Your task to perform on an android device: toggle priority inbox in the gmail app Image 0: 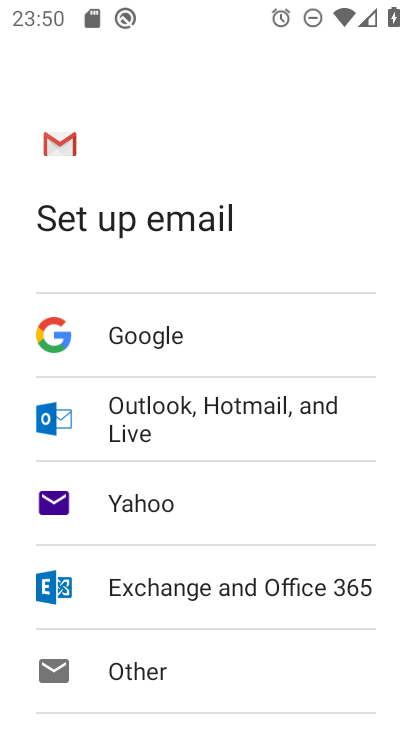
Step 0: press home button
Your task to perform on an android device: toggle priority inbox in the gmail app Image 1: 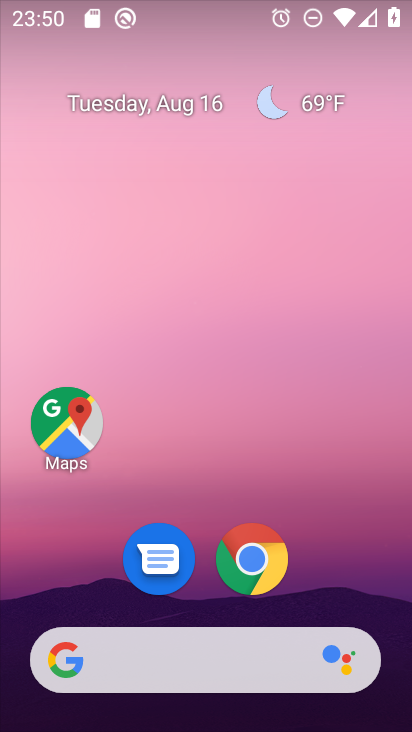
Step 1: drag from (187, 677) to (268, 91)
Your task to perform on an android device: toggle priority inbox in the gmail app Image 2: 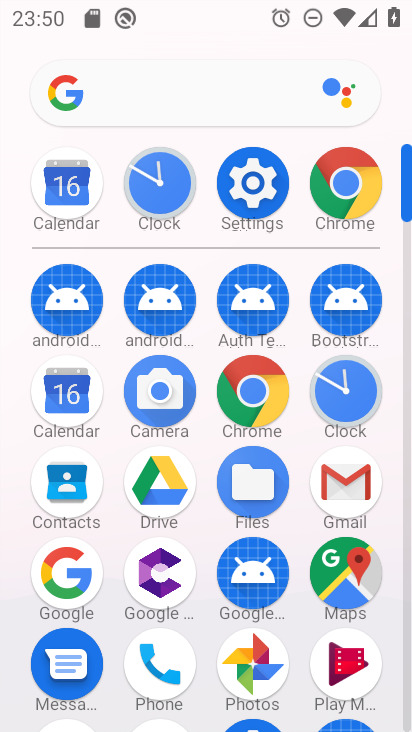
Step 2: click (344, 483)
Your task to perform on an android device: toggle priority inbox in the gmail app Image 3: 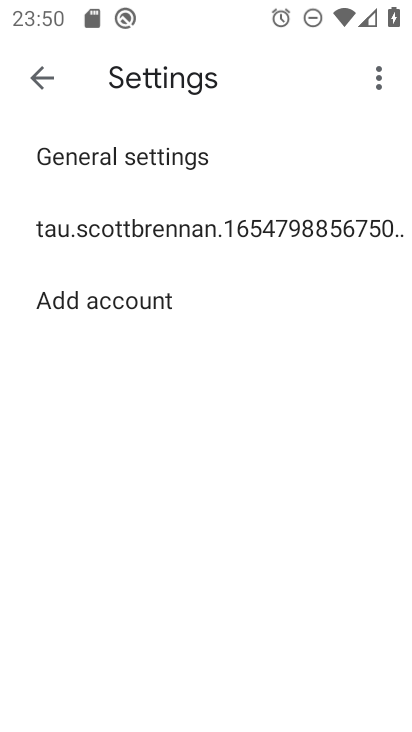
Step 3: click (343, 225)
Your task to perform on an android device: toggle priority inbox in the gmail app Image 4: 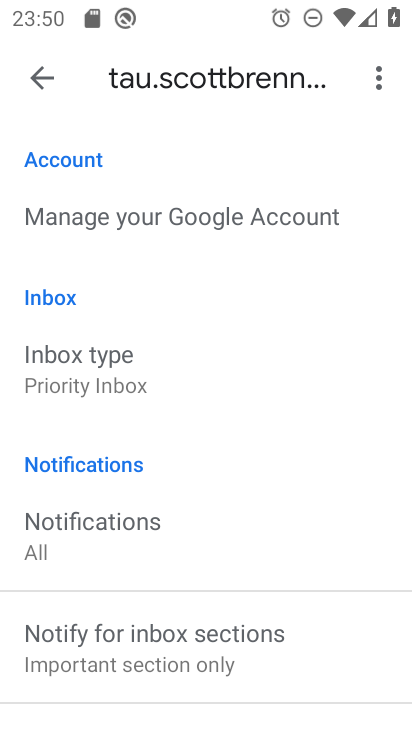
Step 4: click (137, 387)
Your task to perform on an android device: toggle priority inbox in the gmail app Image 5: 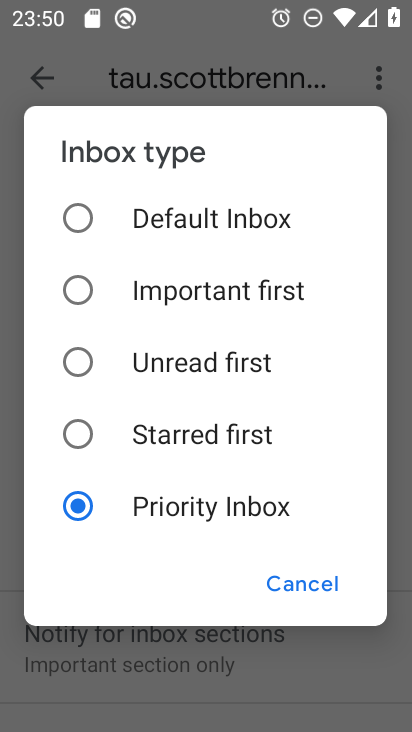
Step 5: click (69, 441)
Your task to perform on an android device: toggle priority inbox in the gmail app Image 6: 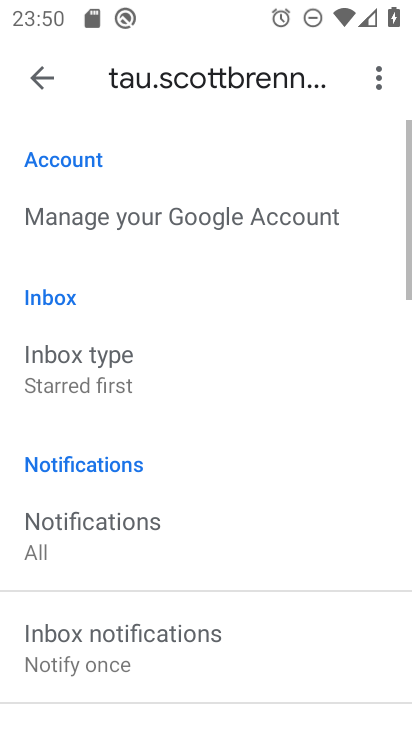
Step 6: task complete